Your task to perform on an android device: turn pop-ups on in chrome Image 0: 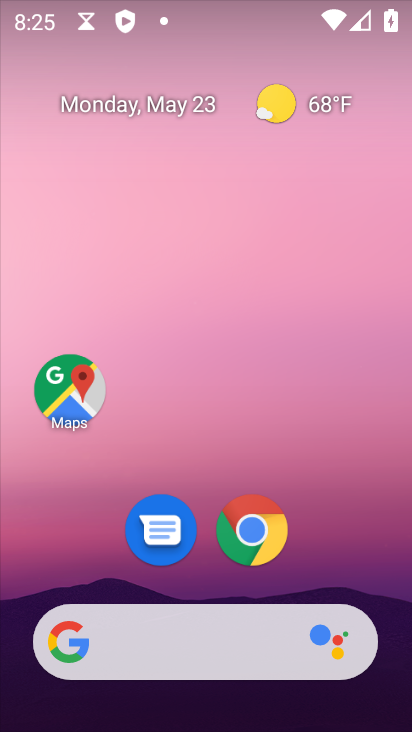
Step 0: click (255, 526)
Your task to perform on an android device: turn pop-ups on in chrome Image 1: 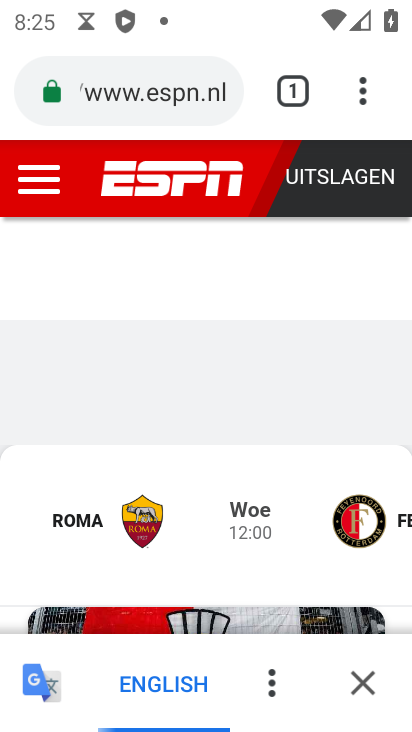
Step 1: drag from (376, 103) to (126, 542)
Your task to perform on an android device: turn pop-ups on in chrome Image 2: 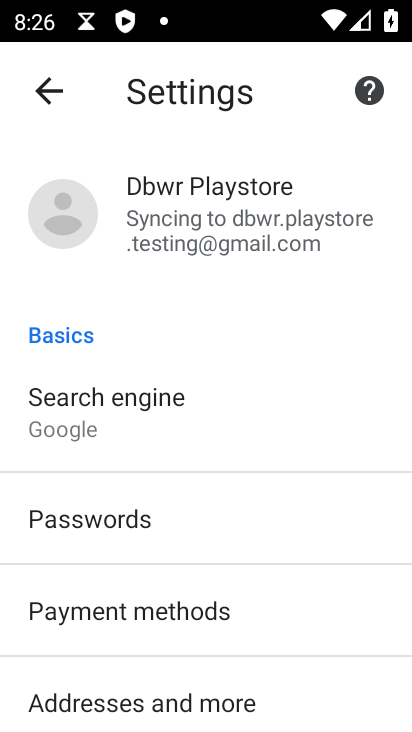
Step 2: drag from (163, 699) to (268, 138)
Your task to perform on an android device: turn pop-ups on in chrome Image 3: 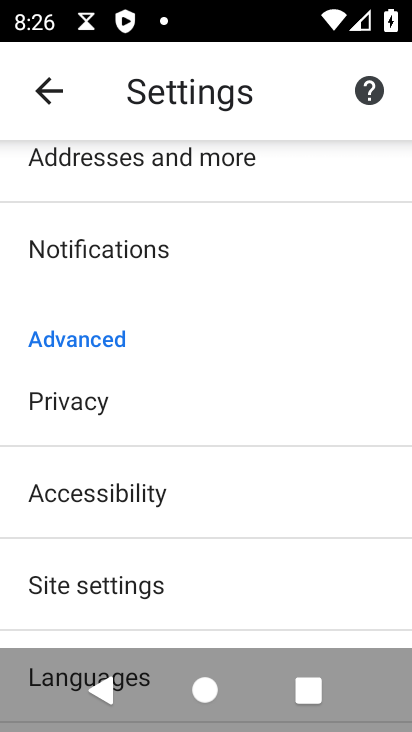
Step 3: click (173, 585)
Your task to perform on an android device: turn pop-ups on in chrome Image 4: 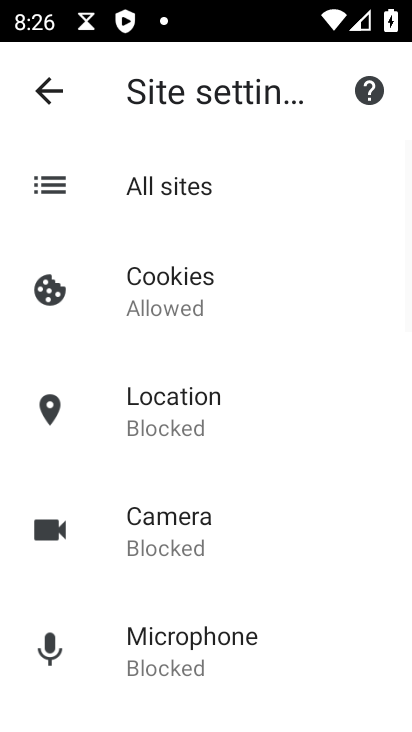
Step 4: drag from (205, 550) to (270, 113)
Your task to perform on an android device: turn pop-ups on in chrome Image 5: 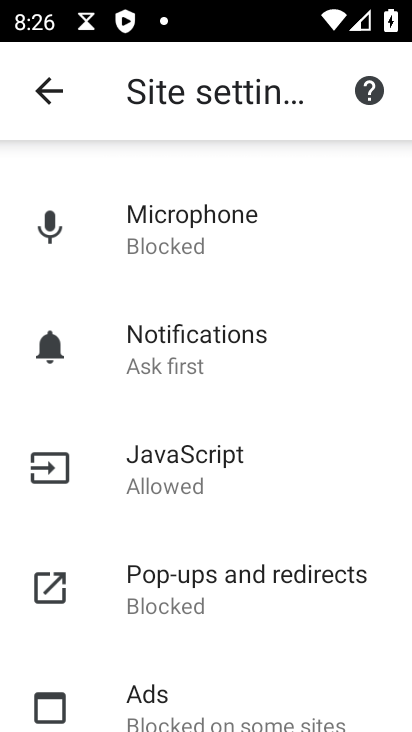
Step 5: click (270, 608)
Your task to perform on an android device: turn pop-ups on in chrome Image 6: 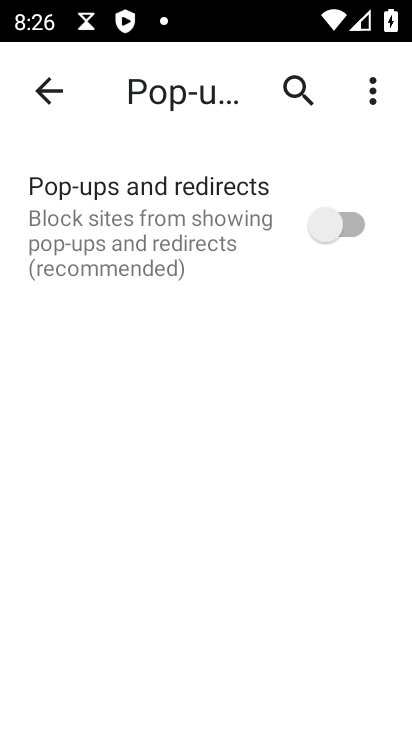
Step 6: click (371, 223)
Your task to perform on an android device: turn pop-ups on in chrome Image 7: 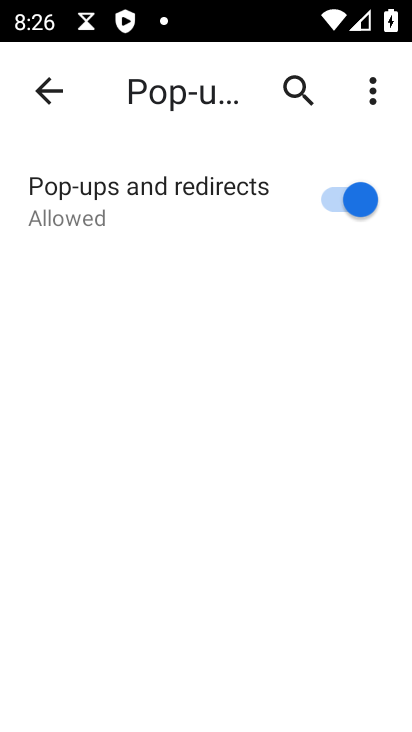
Step 7: task complete